Your task to perform on an android device: find photos in the google photos app Image 0: 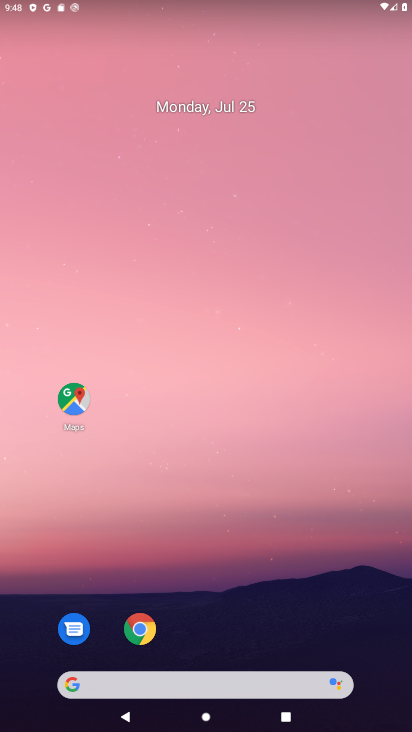
Step 0: drag from (248, 643) to (345, 149)
Your task to perform on an android device: find photos in the google photos app Image 1: 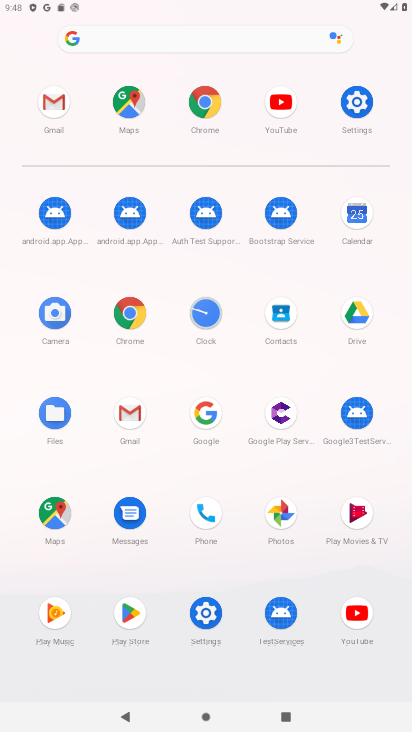
Step 1: drag from (122, 636) to (173, 153)
Your task to perform on an android device: find photos in the google photos app Image 2: 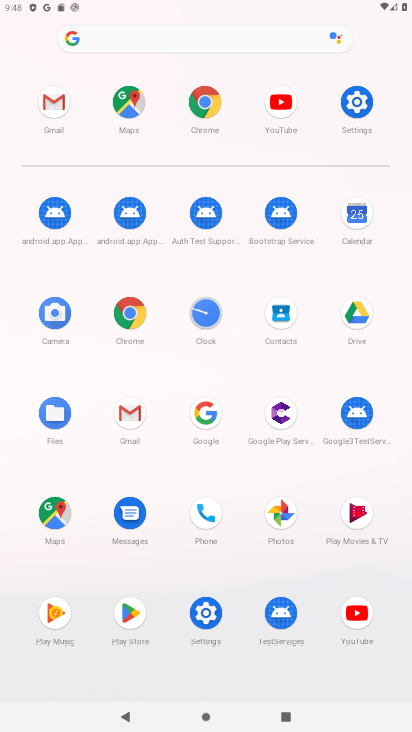
Step 2: click (279, 511)
Your task to perform on an android device: find photos in the google photos app Image 3: 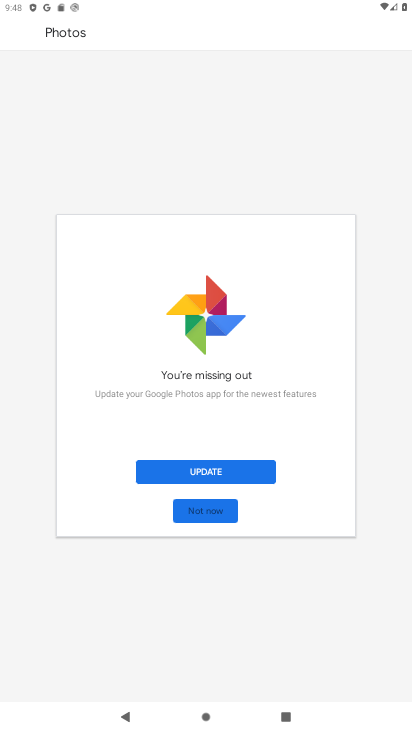
Step 3: click (201, 514)
Your task to perform on an android device: find photos in the google photos app Image 4: 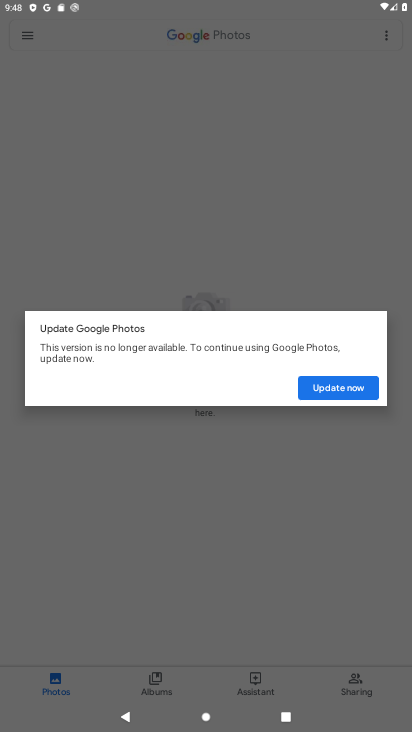
Step 4: click (345, 386)
Your task to perform on an android device: find photos in the google photos app Image 5: 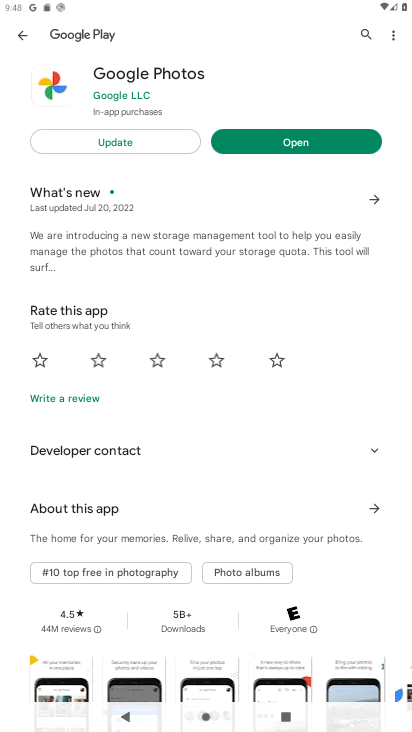
Step 5: click (305, 141)
Your task to perform on an android device: find photos in the google photos app Image 6: 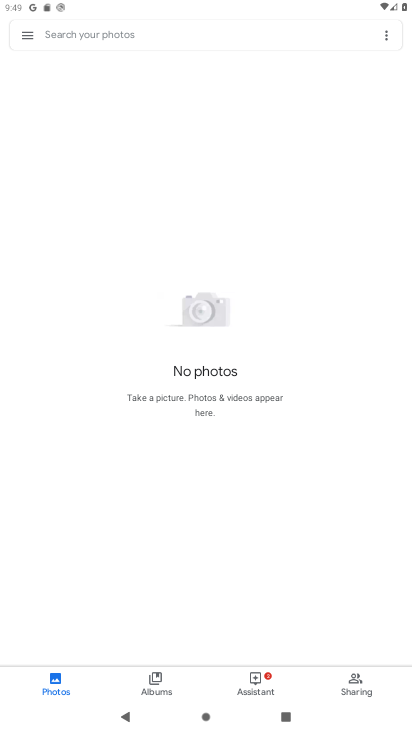
Step 6: task complete